Your task to perform on an android device: check google app version Image 0: 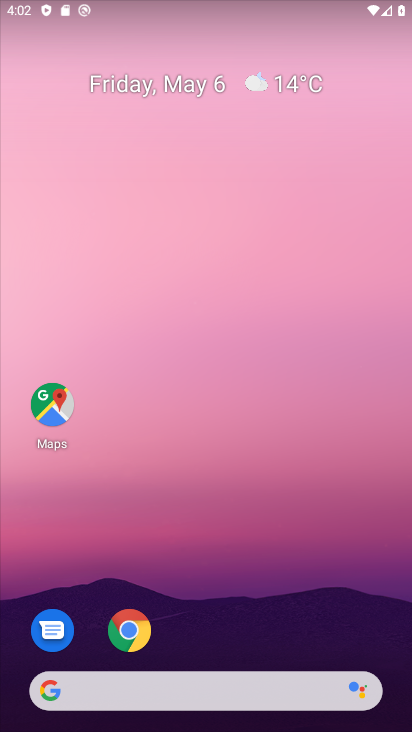
Step 0: drag from (272, 521) to (263, 46)
Your task to perform on an android device: check google app version Image 1: 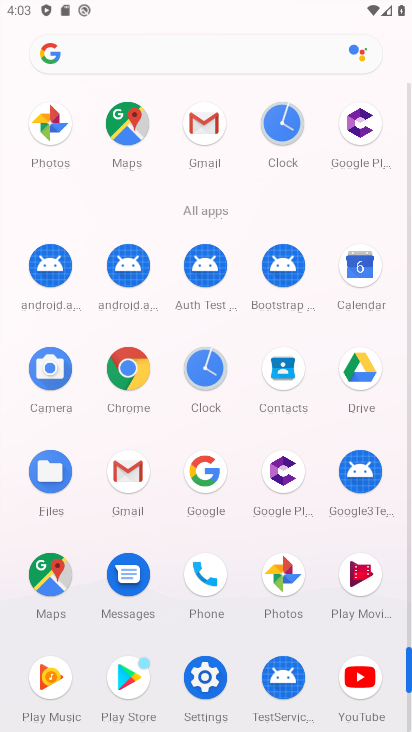
Step 1: drag from (393, 637) to (401, 282)
Your task to perform on an android device: check google app version Image 2: 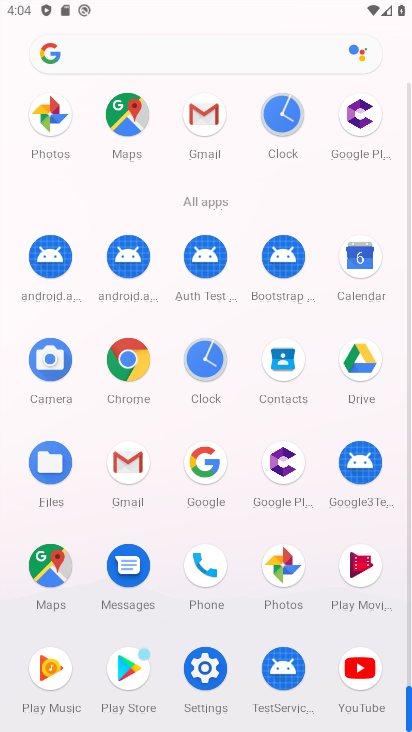
Step 2: drag from (312, 578) to (245, 429)
Your task to perform on an android device: check google app version Image 3: 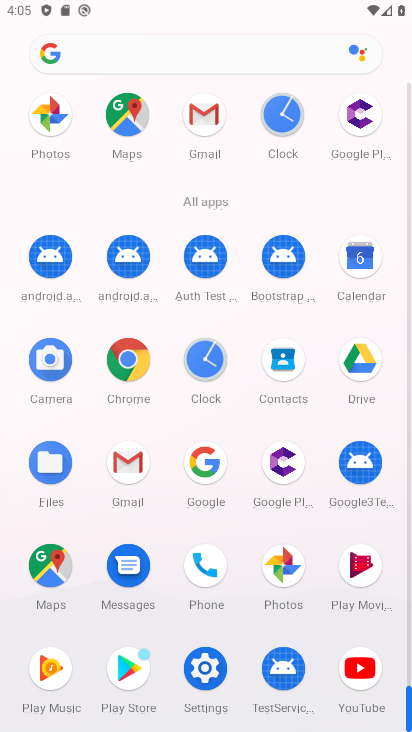
Step 3: click (205, 459)
Your task to perform on an android device: check google app version Image 4: 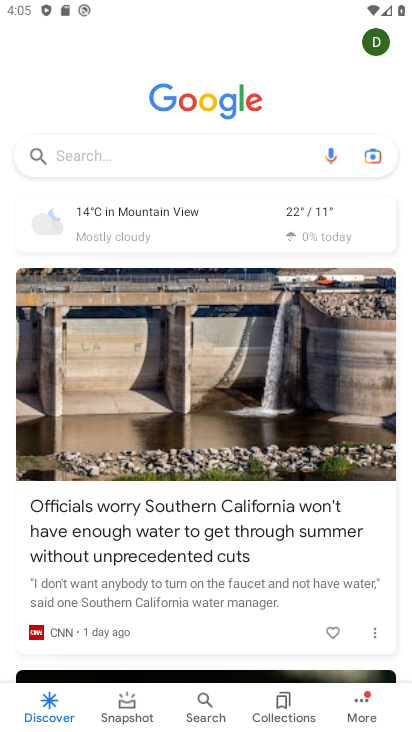
Step 4: click (361, 711)
Your task to perform on an android device: check google app version Image 5: 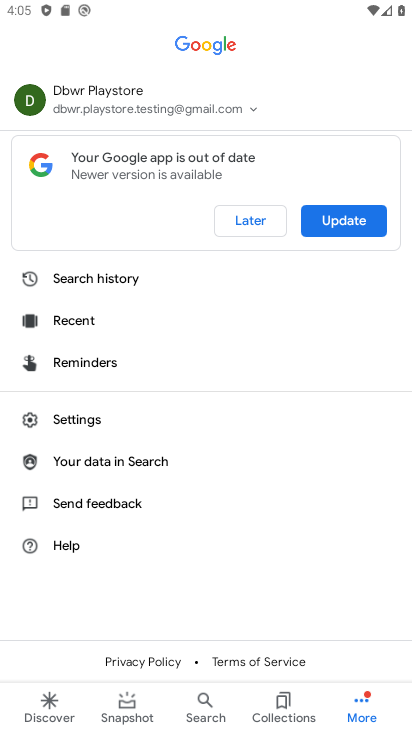
Step 5: click (75, 430)
Your task to perform on an android device: check google app version Image 6: 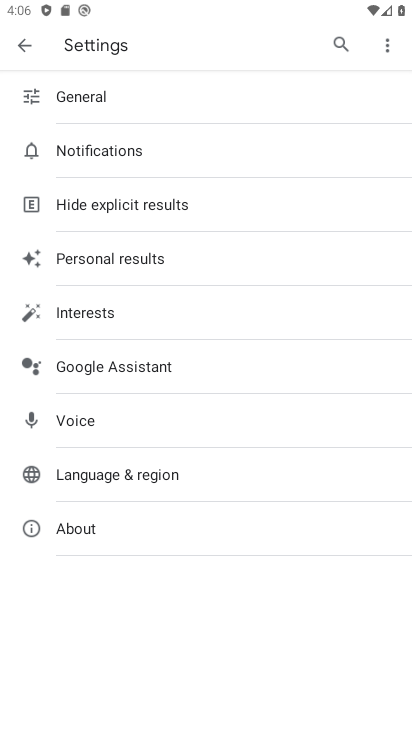
Step 6: click (123, 536)
Your task to perform on an android device: check google app version Image 7: 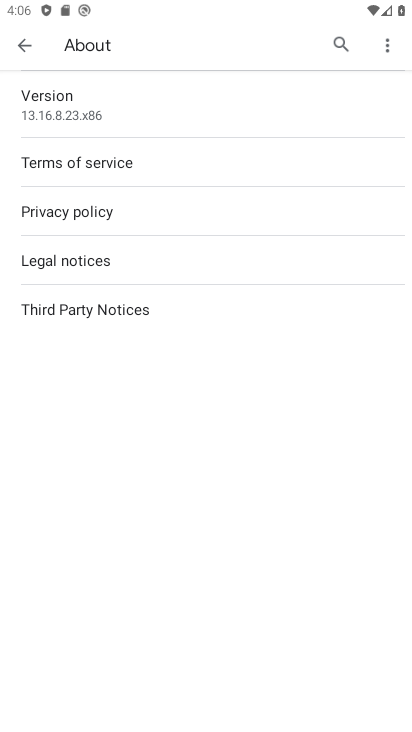
Step 7: click (150, 130)
Your task to perform on an android device: check google app version Image 8: 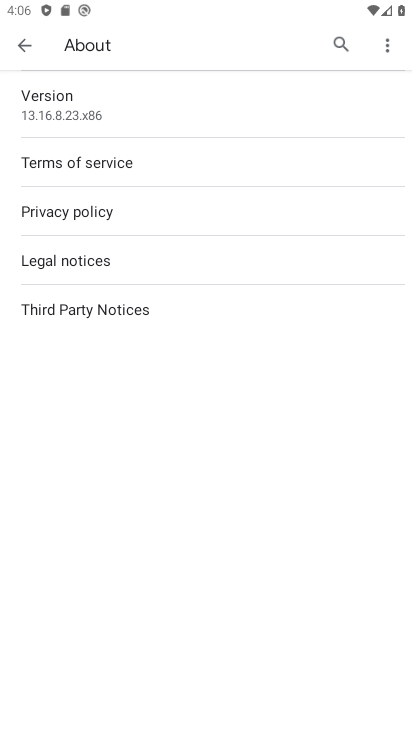
Step 8: task complete